Your task to perform on an android device: Go to Maps Image 0: 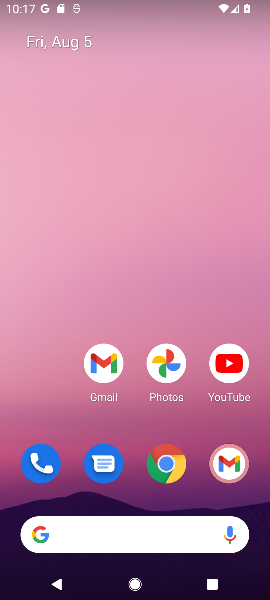
Step 0: drag from (192, 454) to (178, 185)
Your task to perform on an android device: Go to Maps Image 1: 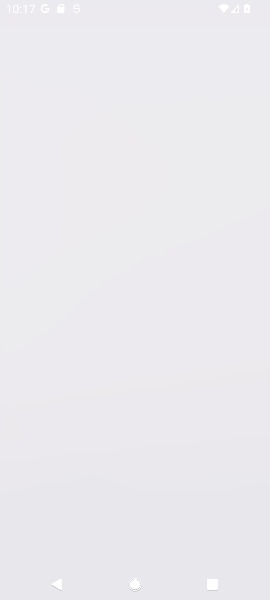
Step 1: drag from (185, 488) to (104, 111)
Your task to perform on an android device: Go to Maps Image 2: 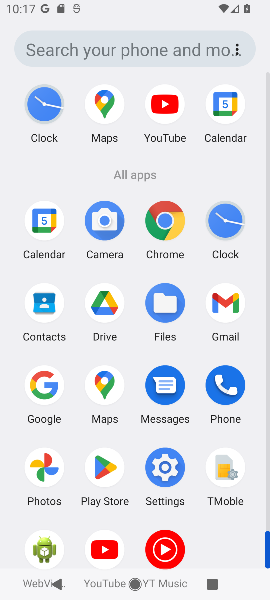
Step 2: click (102, 392)
Your task to perform on an android device: Go to Maps Image 3: 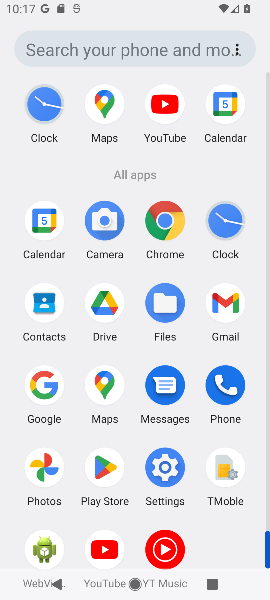
Step 3: click (102, 392)
Your task to perform on an android device: Go to Maps Image 4: 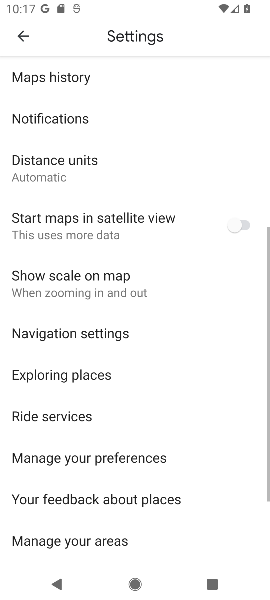
Step 4: click (102, 392)
Your task to perform on an android device: Go to Maps Image 5: 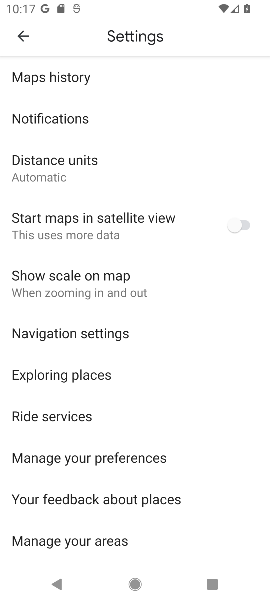
Step 5: task complete